Your task to perform on an android device: toggle pop-ups in chrome Image 0: 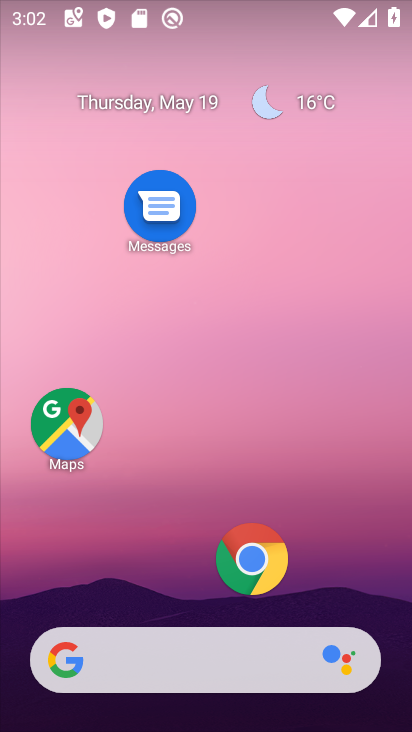
Step 0: click (249, 562)
Your task to perform on an android device: toggle pop-ups in chrome Image 1: 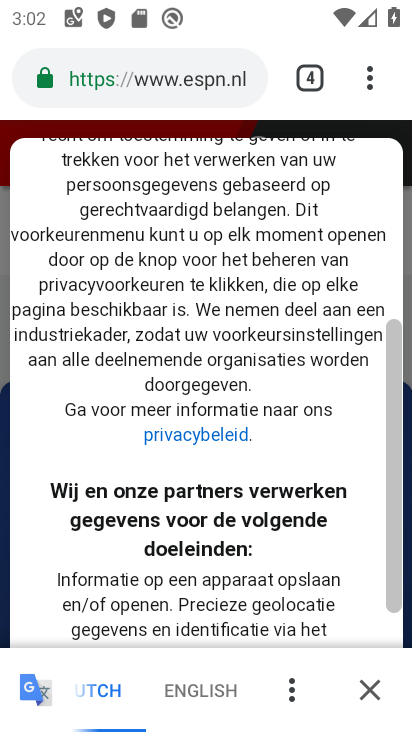
Step 1: drag from (368, 75) to (110, 603)
Your task to perform on an android device: toggle pop-ups in chrome Image 2: 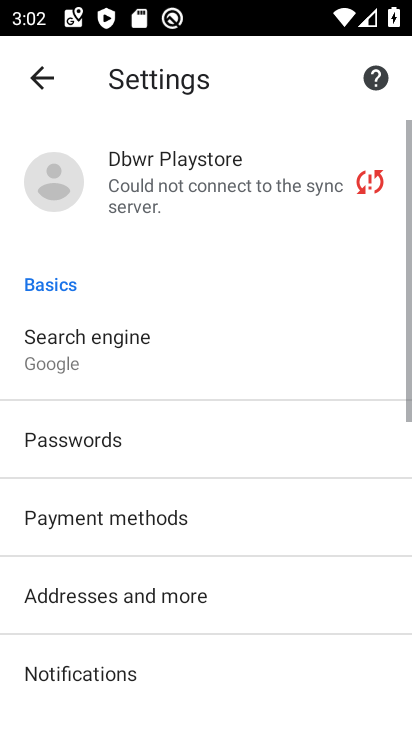
Step 2: drag from (192, 629) to (211, 281)
Your task to perform on an android device: toggle pop-ups in chrome Image 3: 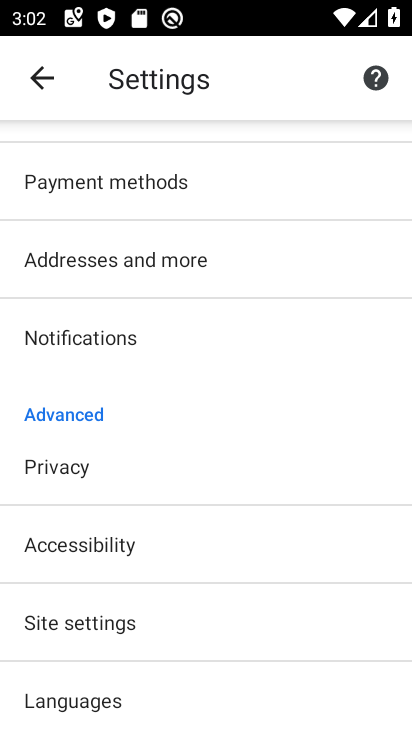
Step 3: click (155, 629)
Your task to perform on an android device: toggle pop-ups in chrome Image 4: 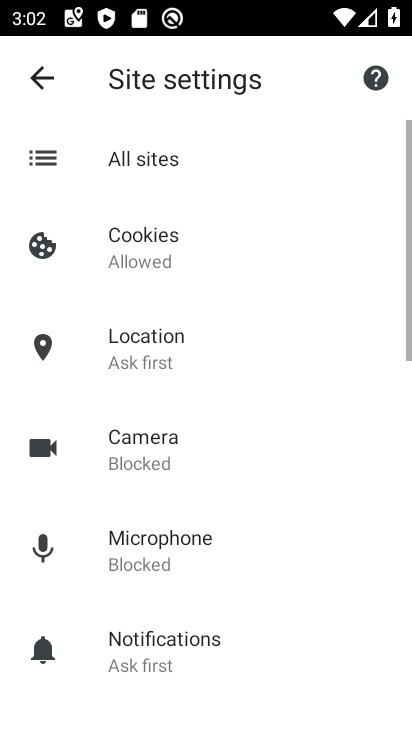
Step 4: drag from (156, 628) to (200, 414)
Your task to perform on an android device: toggle pop-ups in chrome Image 5: 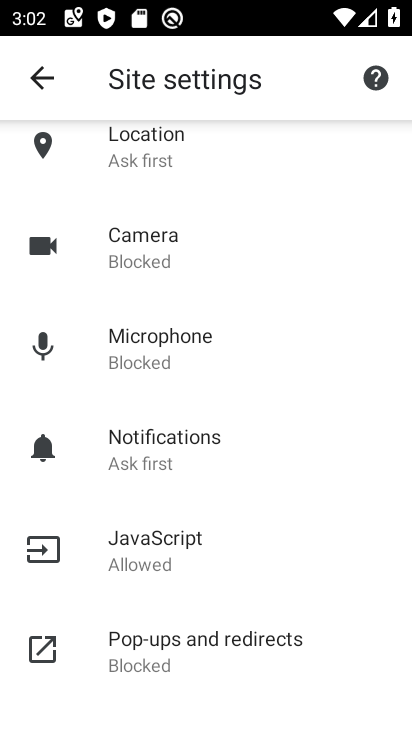
Step 5: click (191, 631)
Your task to perform on an android device: toggle pop-ups in chrome Image 6: 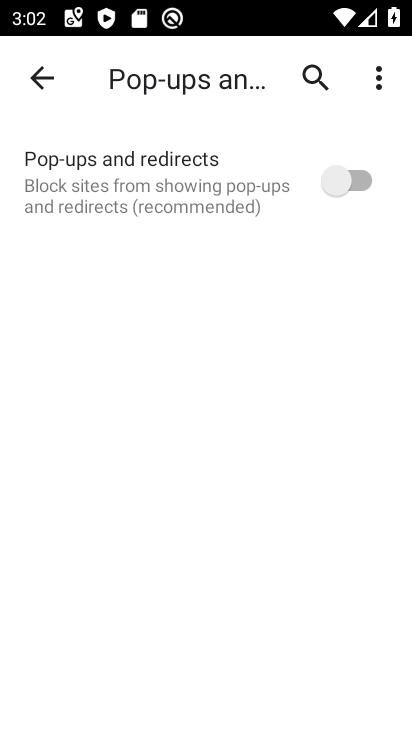
Step 6: click (354, 180)
Your task to perform on an android device: toggle pop-ups in chrome Image 7: 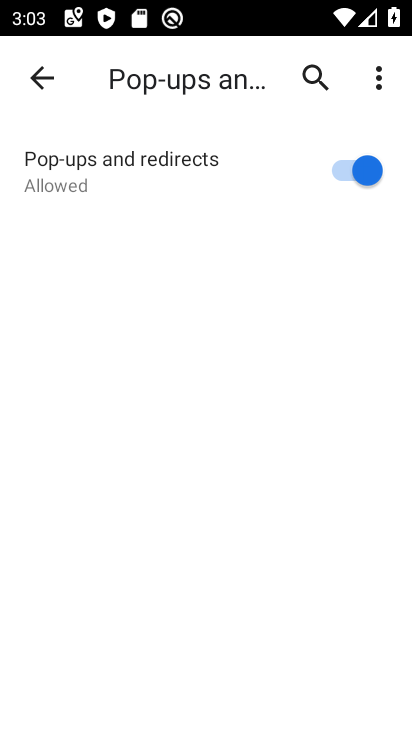
Step 7: task complete